Your task to perform on an android device: change the clock style Image 0: 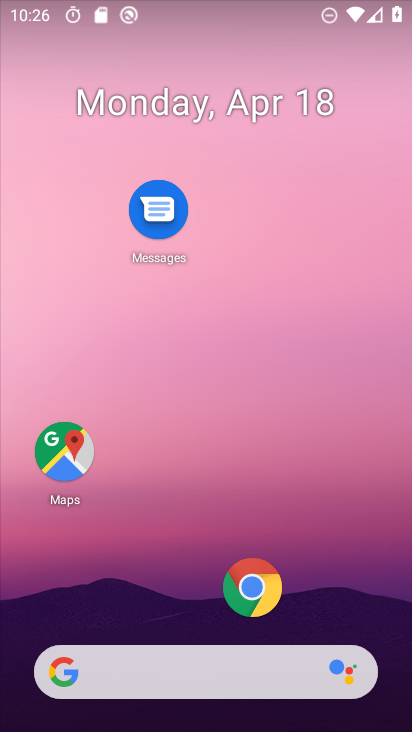
Step 0: drag from (151, 561) to (283, 45)
Your task to perform on an android device: change the clock style Image 1: 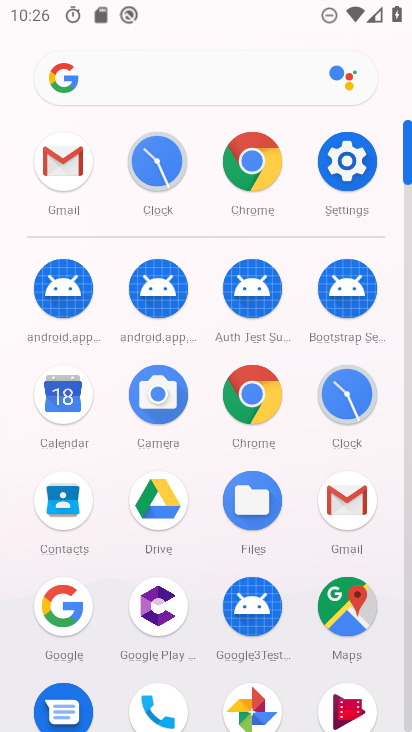
Step 1: click (363, 392)
Your task to perform on an android device: change the clock style Image 2: 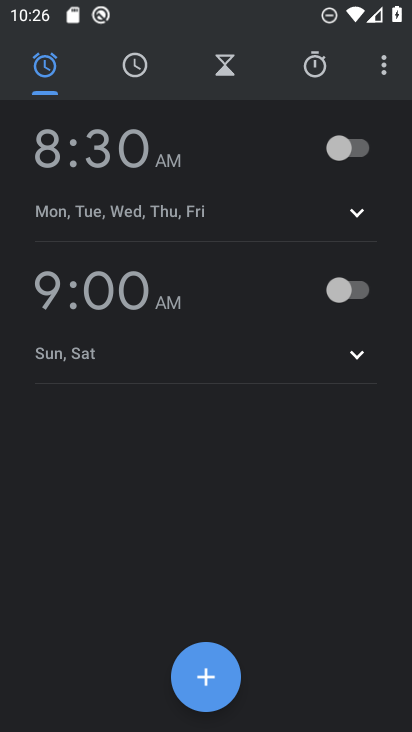
Step 2: click (381, 64)
Your task to perform on an android device: change the clock style Image 3: 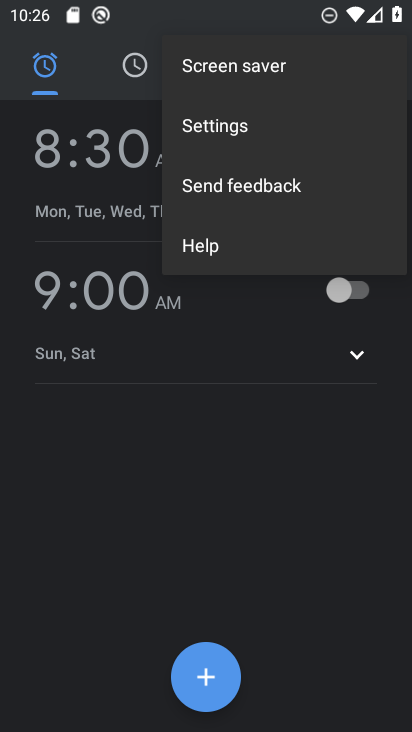
Step 3: click (218, 135)
Your task to perform on an android device: change the clock style Image 4: 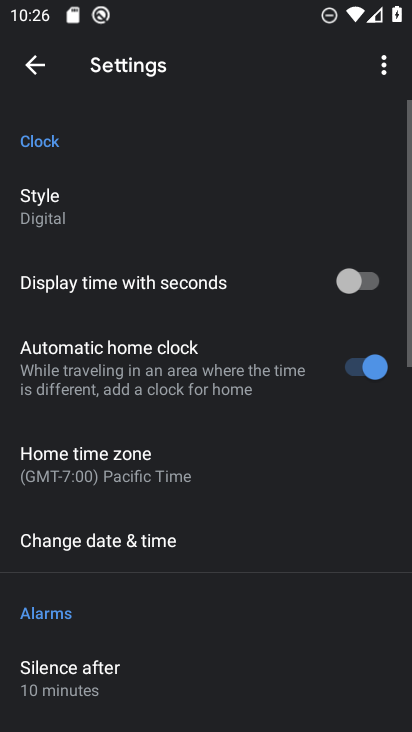
Step 4: click (71, 213)
Your task to perform on an android device: change the clock style Image 5: 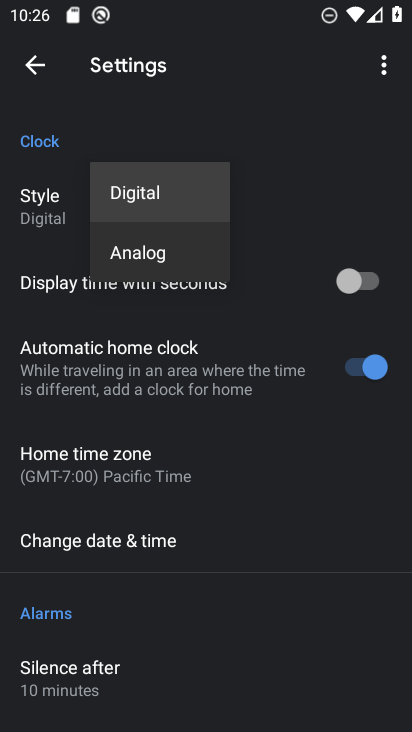
Step 5: click (161, 252)
Your task to perform on an android device: change the clock style Image 6: 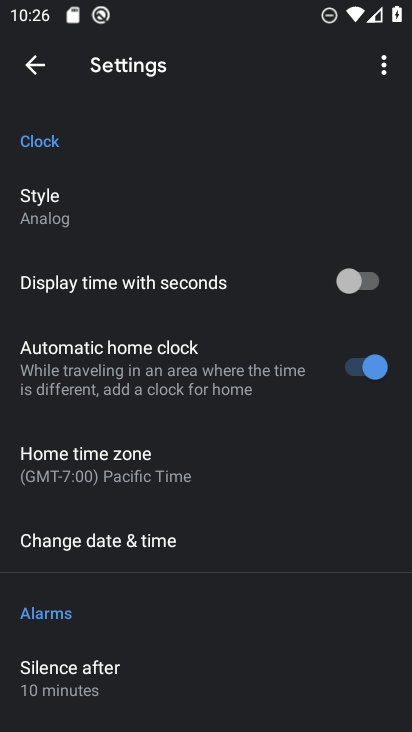
Step 6: task complete